Your task to perform on an android device: open chrome and create a bookmark for the current page Image 0: 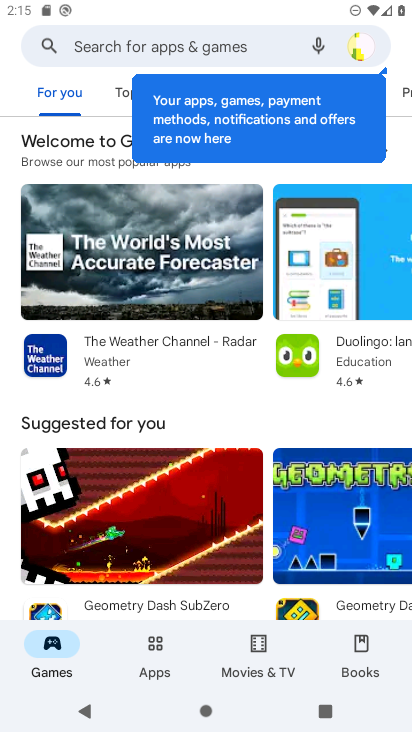
Step 0: press home button
Your task to perform on an android device: open chrome and create a bookmark for the current page Image 1: 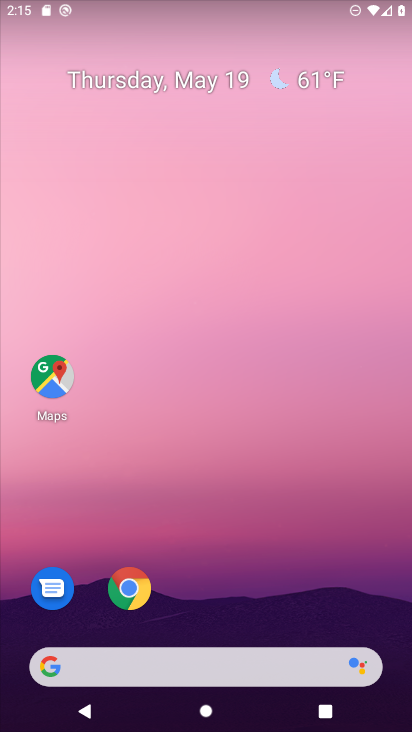
Step 1: click (131, 594)
Your task to perform on an android device: open chrome and create a bookmark for the current page Image 2: 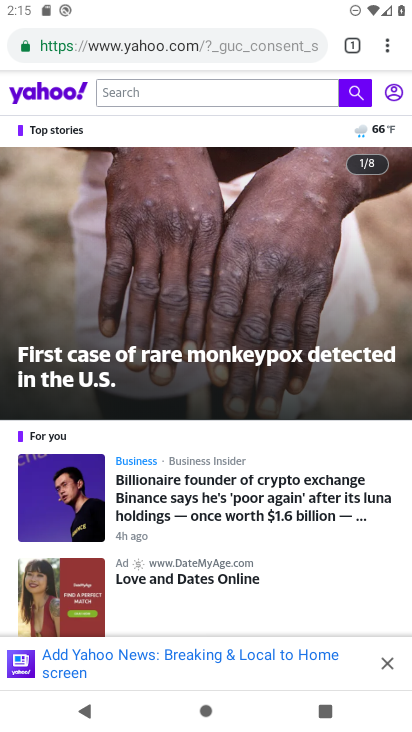
Step 2: click (389, 43)
Your task to perform on an android device: open chrome and create a bookmark for the current page Image 3: 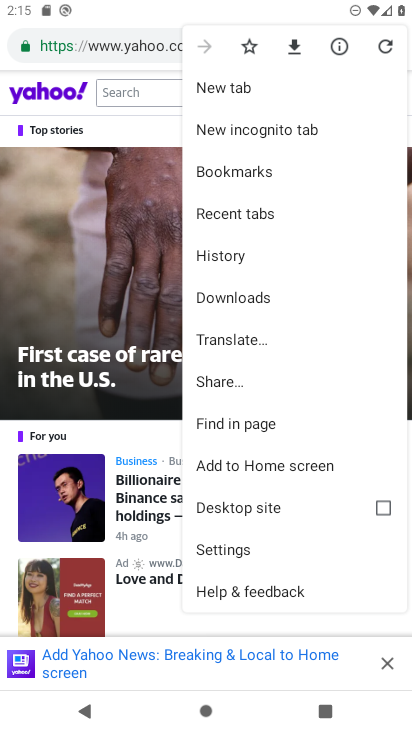
Step 3: click (250, 43)
Your task to perform on an android device: open chrome and create a bookmark for the current page Image 4: 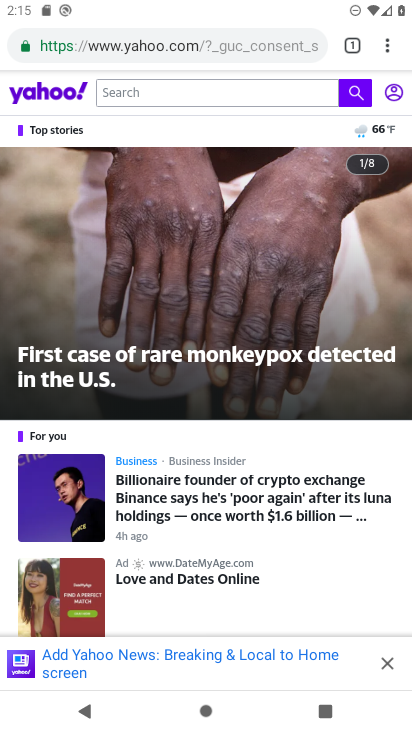
Step 4: task complete